Your task to perform on an android device: Is it going to rain tomorrow? Image 0: 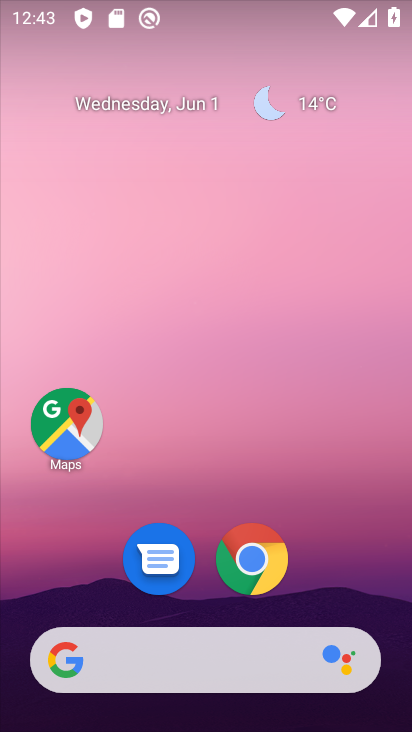
Step 0: drag from (324, 221) to (325, 66)
Your task to perform on an android device: Is it going to rain tomorrow? Image 1: 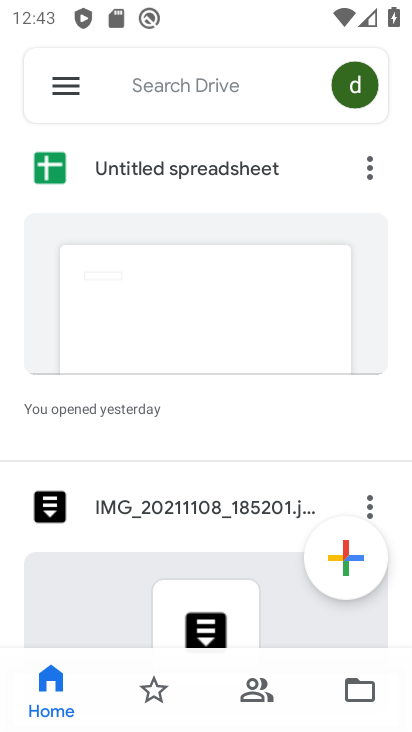
Step 1: press home button
Your task to perform on an android device: Is it going to rain tomorrow? Image 2: 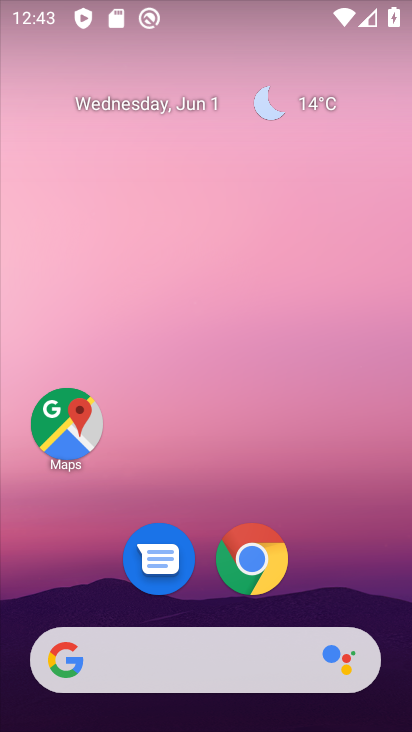
Step 2: click (284, 104)
Your task to perform on an android device: Is it going to rain tomorrow? Image 3: 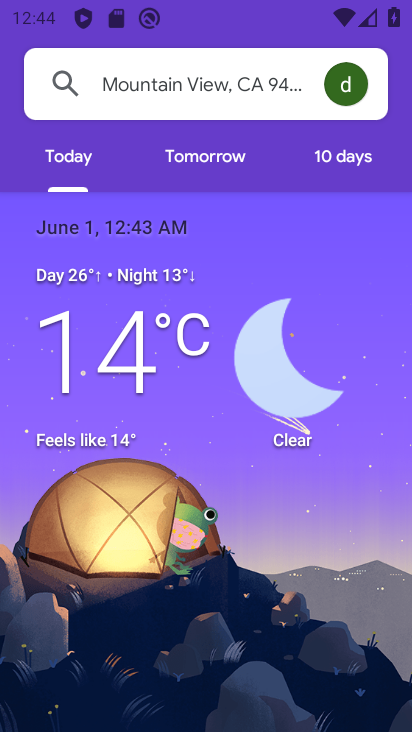
Step 3: click (176, 145)
Your task to perform on an android device: Is it going to rain tomorrow? Image 4: 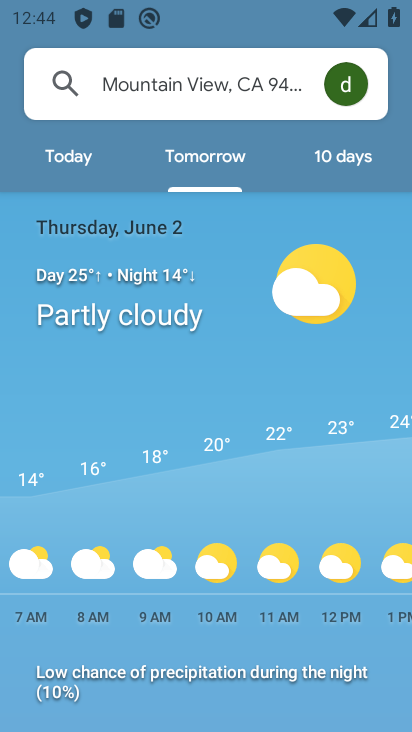
Step 4: task complete